Your task to perform on an android device: change keyboard looks Image 0: 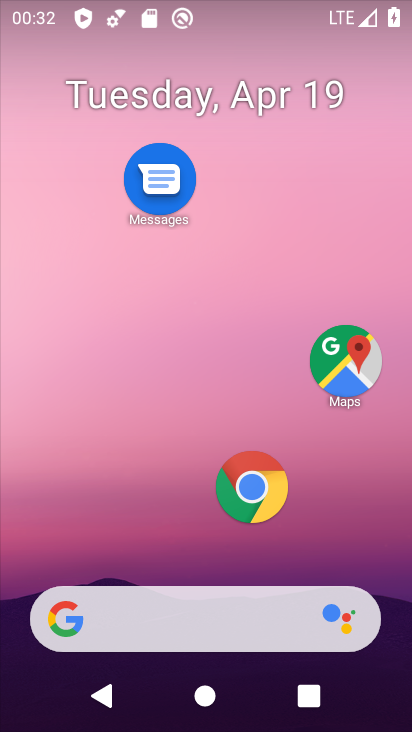
Step 0: drag from (132, 181) to (118, 9)
Your task to perform on an android device: change keyboard looks Image 1: 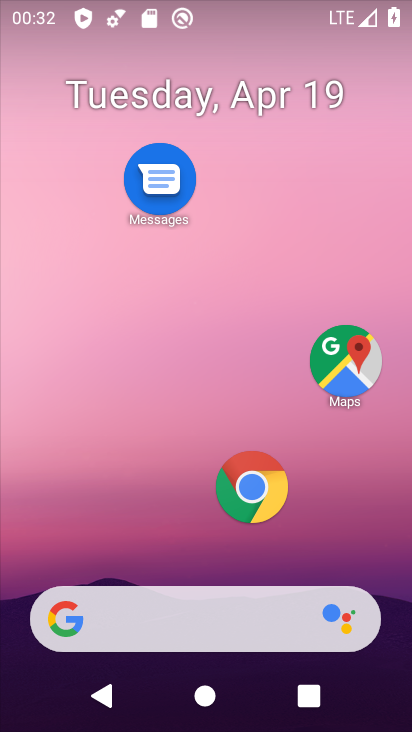
Step 1: drag from (143, 26) to (11, 86)
Your task to perform on an android device: change keyboard looks Image 2: 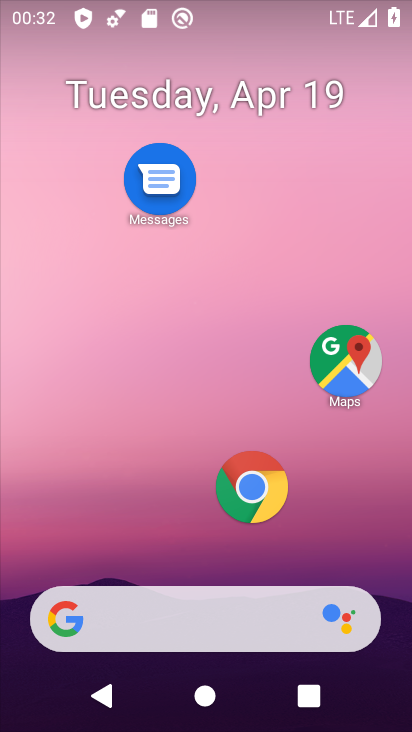
Step 2: drag from (152, 524) to (190, 1)
Your task to perform on an android device: change keyboard looks Image 3: 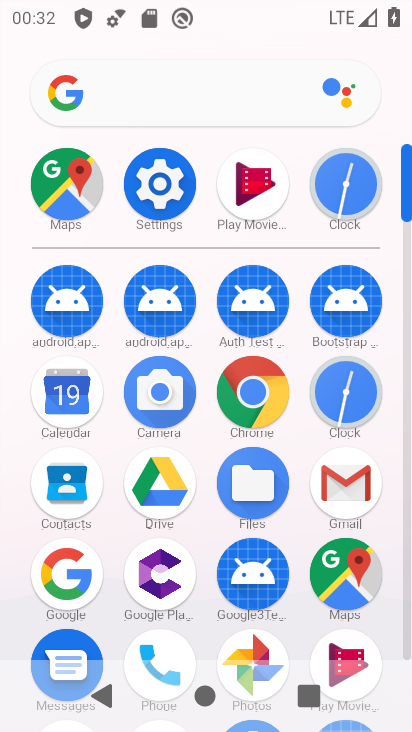
Step 3: click (155, 186)
Your task to perform on an android device: change keyboard looks Image 4: 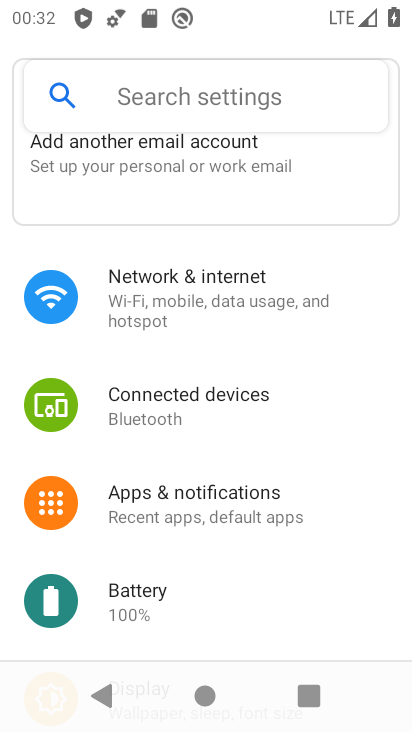
Step 4: drag from (222, 548) to (159, 81)
Your task to perform on an android device: change keyboard looks Image 5: 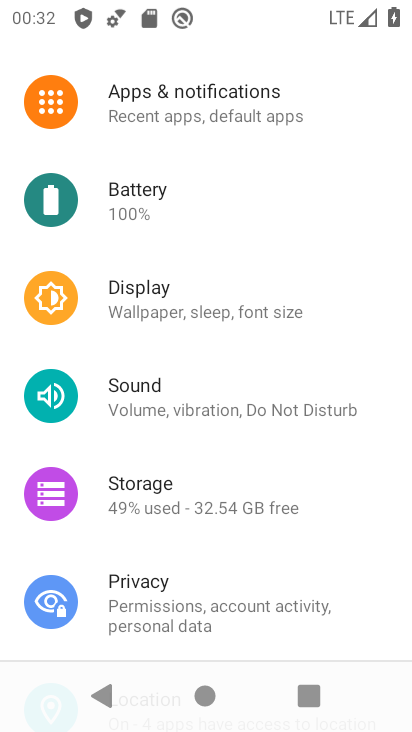
Step 5: drag from (180, 536) to (112, 20)
Your task to perform on an android device: change keyboard looks Image 6: 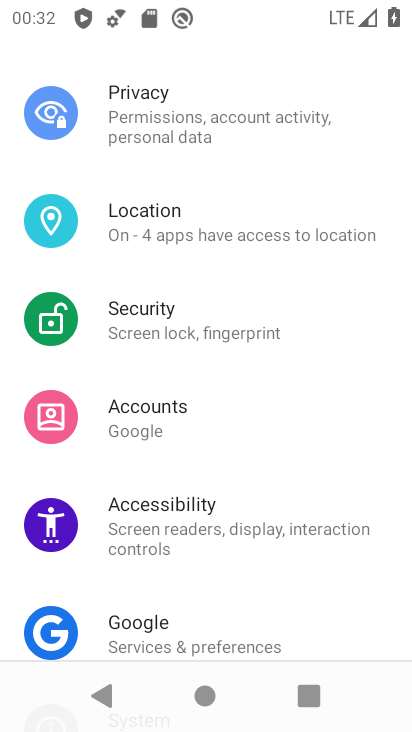
Step 6: drag from (178, 595) to (79, 74)
Your task to perform on an android device: change keyboard looks Image 7: 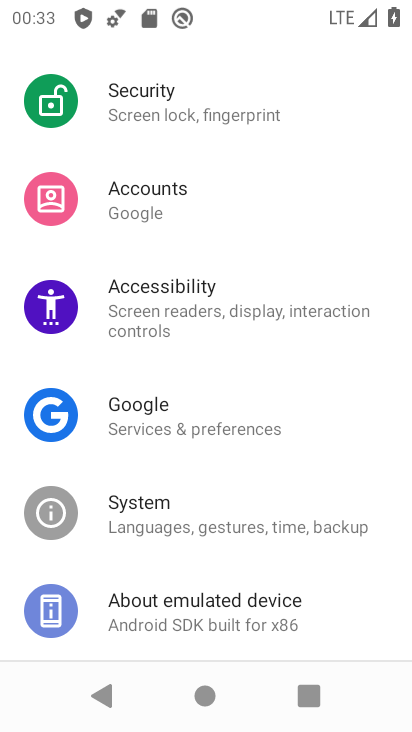
Step 7: click (141, 515)
Your task to perform on an android device: change keyboard looks Image 8: 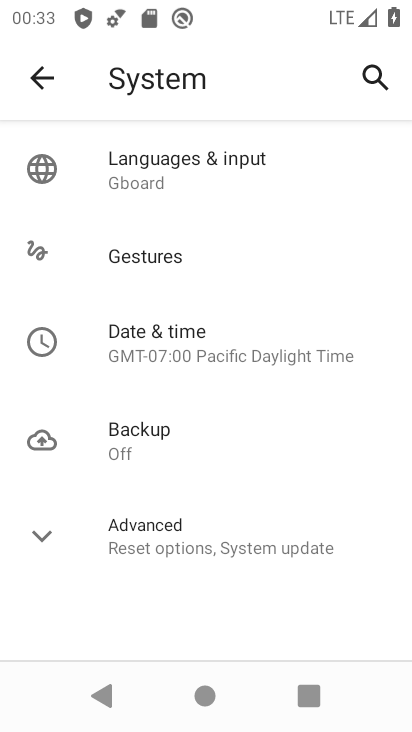
Step 8: click (139, 167)
Your task to perform on an android device: change keyboard looks Image 9: 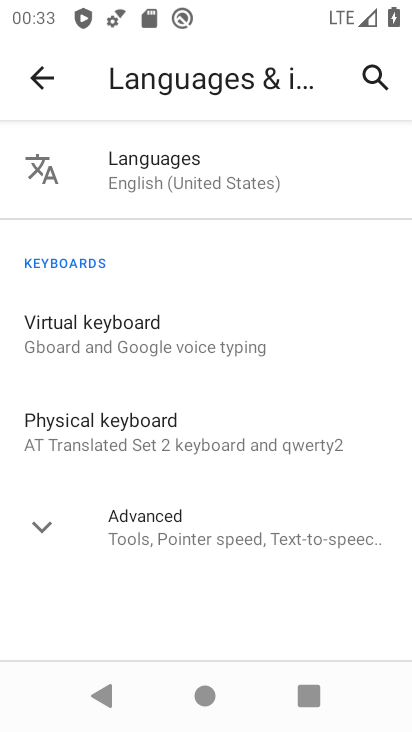
Step 9: click (110, 330)
Your task to perform on an android device: change keyboard looks Image 10: 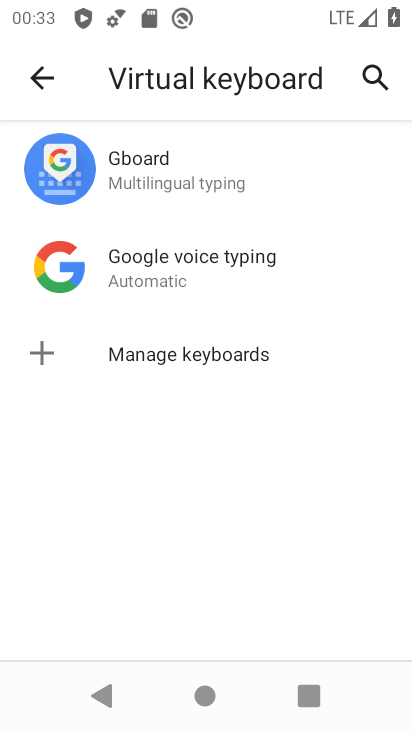
Step 10: click (122, 155)
Your task to perform on an android device: change keyboard looks Image 11: 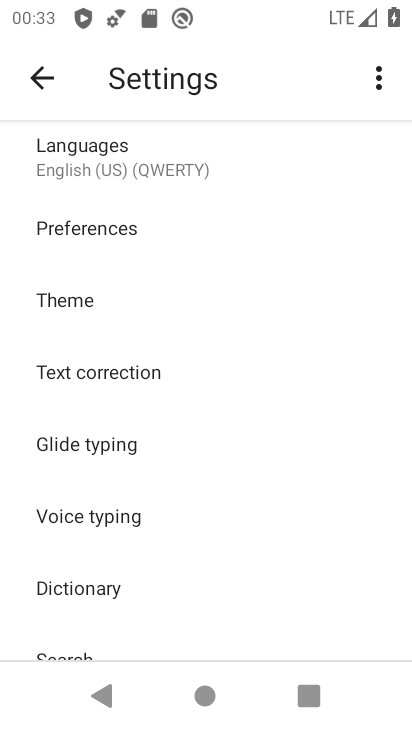
Step 11: click (67, 298)
Your task to perform on an android device: change keyboard looks Image 12: 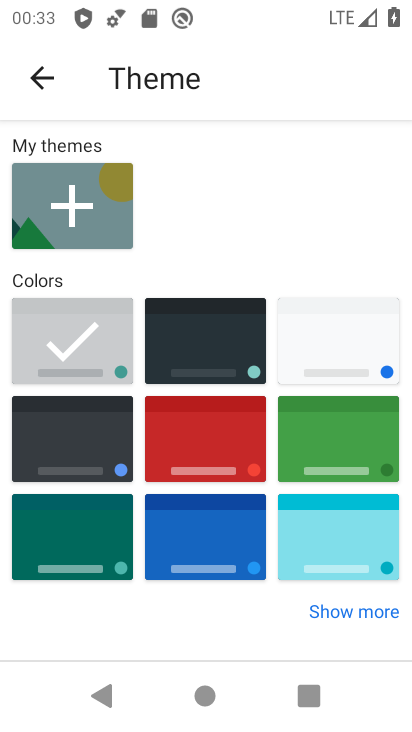
Step 12: click (193, 345)
Your task to perform on an android device: change keyboard looks Image 13: 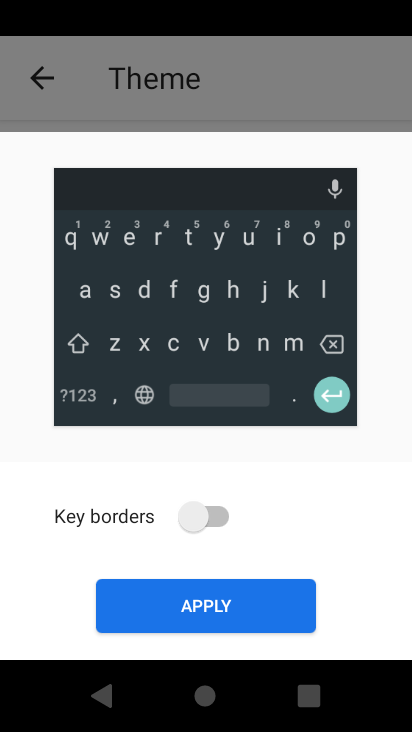
Step 13: click (232, 611)
Your task to perform on an android device: change keyboard looks Image 14: 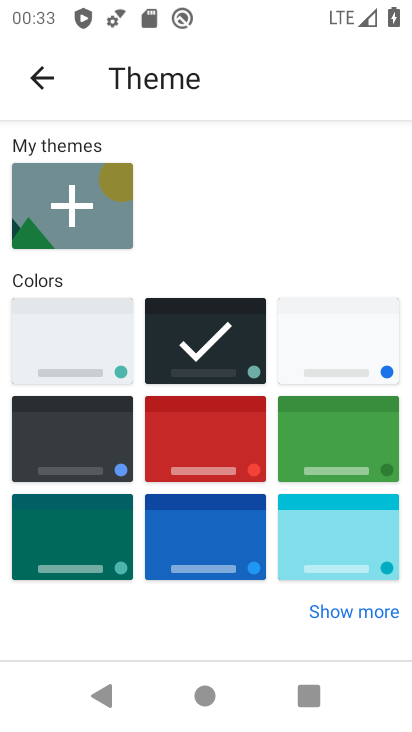
Step 14: task complete